Your task to perform on an android device: empty trash in the gmail app Image 0: 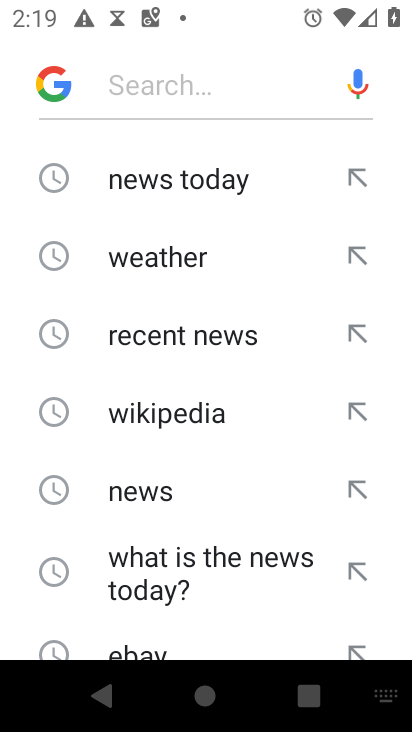
Step 0: press back button
Your task to perform on an android device: empty trash in the gmail app Image 1: 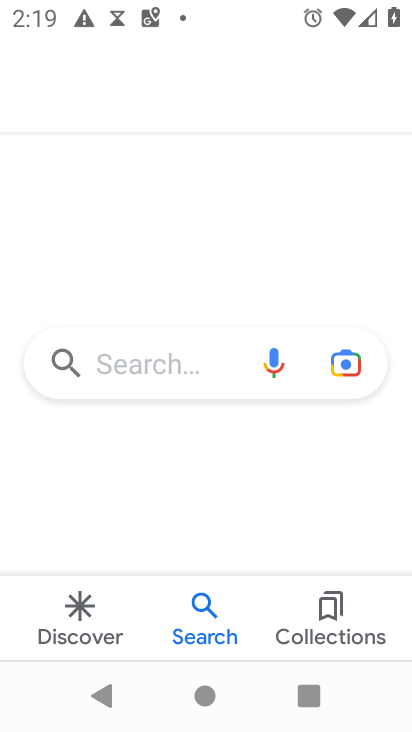
Step 1: press back button
Your task to perform on an android device: empty trash in the gmail app Image 2: 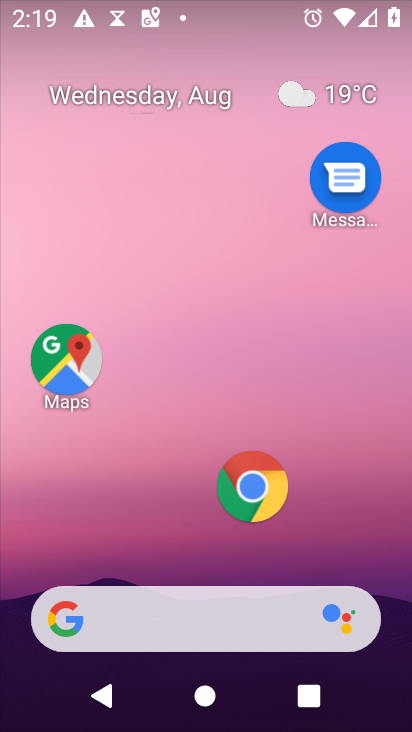
Step 2: drag from (147, 574) to (222, 42)
Your task to perform on an android device: empty trash in the gmail app Image 3: 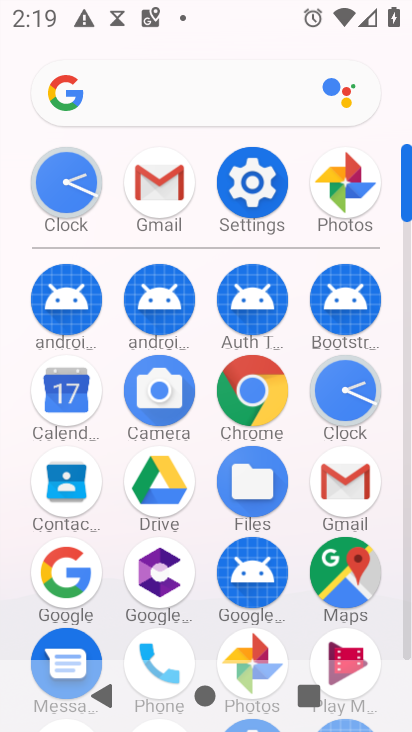
Step 3: click (148, 184)
Your task to perform on an android device: empty trash in the gmail app Image 4: 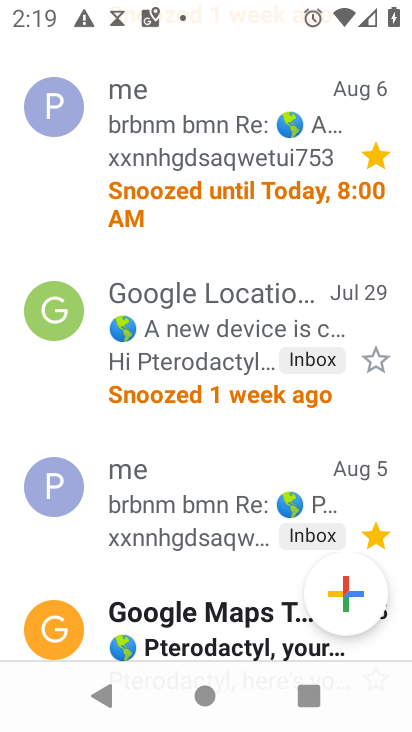
Step 4: drag from (180, 117) to (186, 691)
Your task to perform on an android device: empty trash in the gmail app Image 5: 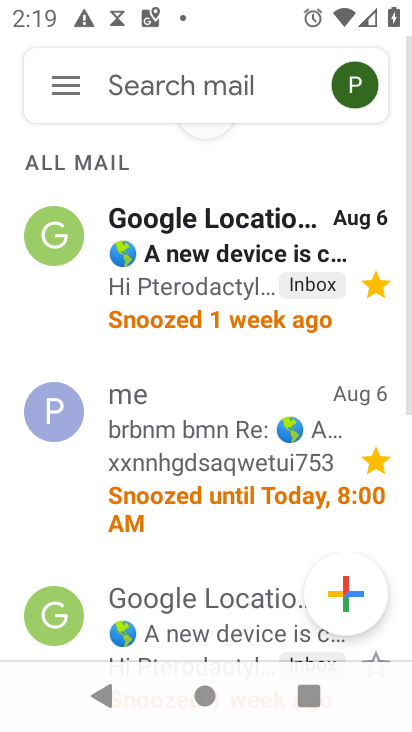
Step 5: click (72, 83)
Your task to perform on an android device: empty trash in the gmail app Image 6: 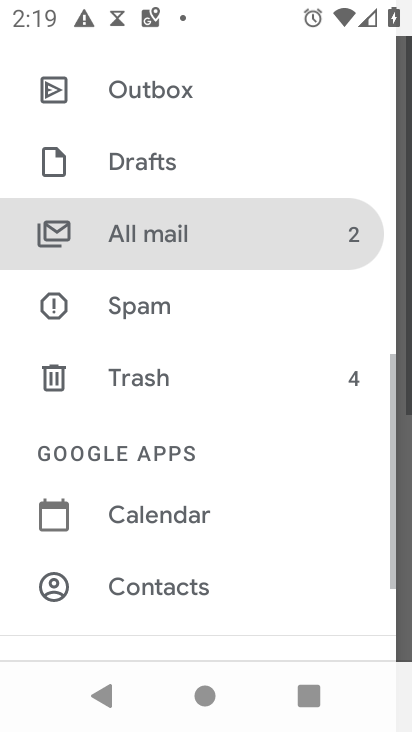
Step 6: click (149, 362)
Your task to perform on an android device: empty trash in the gmail app Image 7: 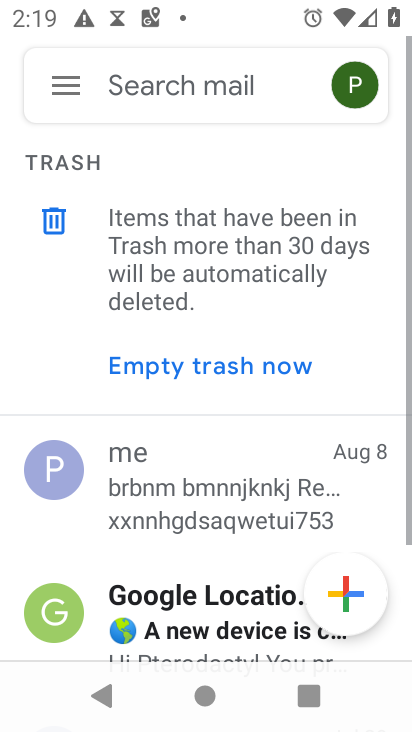
Step 7: click (168, 378)
Your task to perform on an android device: empty trash in the gmail app Image 8: 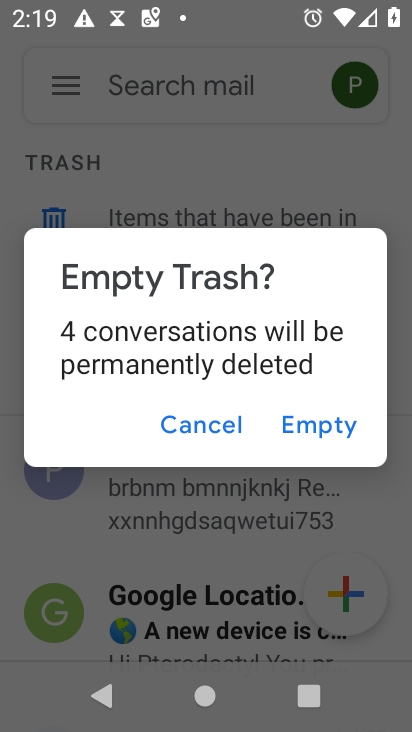
Step 8: click (315, 432)
Your task to perform on an android device: empty trash in the gmail app Image 9: 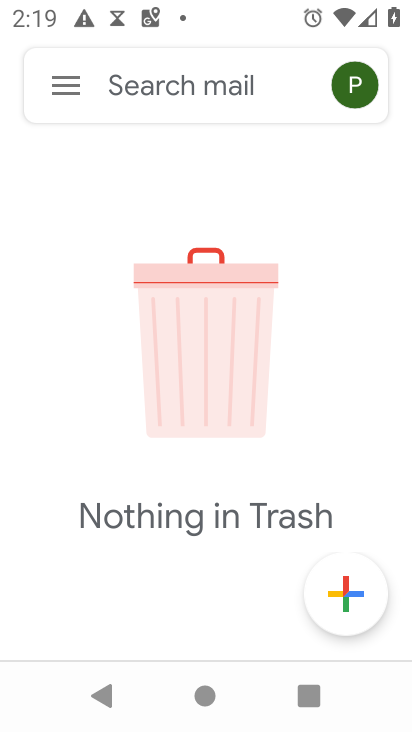
Step 9: task complete